Your task to perform on an android device: Do I have any events this weekend? Image 0: 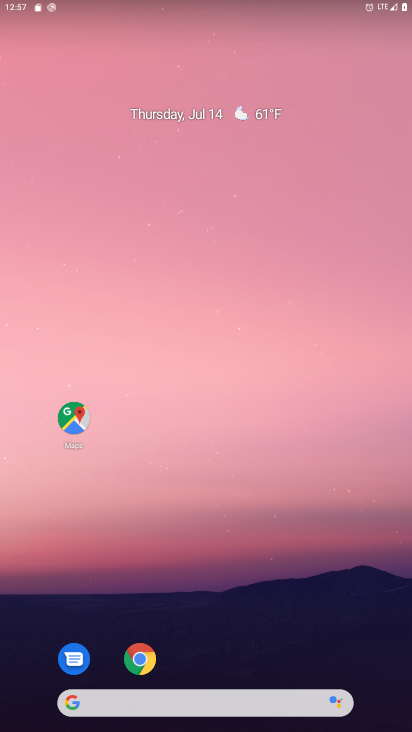
Step 0: drag from (243, 657) to (249, 78)
Your task to perform on an android device: Do I have any events this weekend? Image 1: 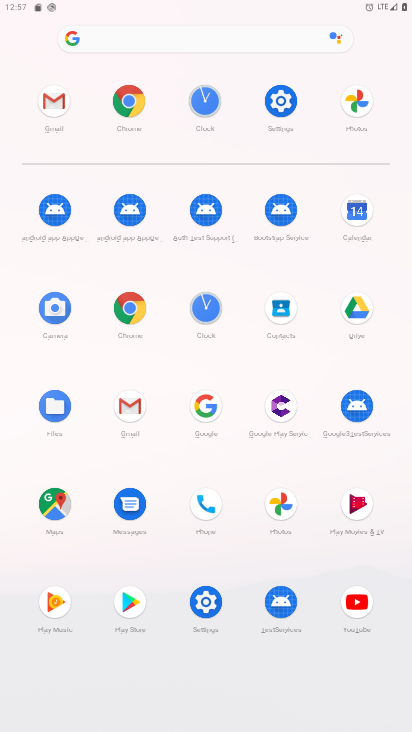
Step 1: click (360, 215)
Your task to perform on an android device: Do I have any events this weekend? Image 2: 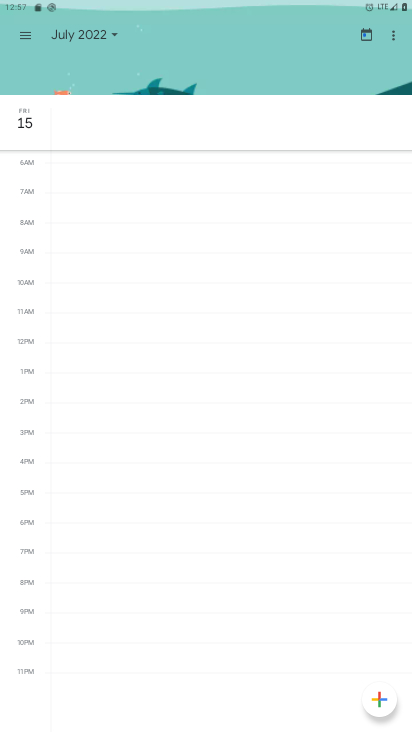
Step 2: click (122, 31)
Your task to perform on an android device: Do I have any events this weekend? Image 3: 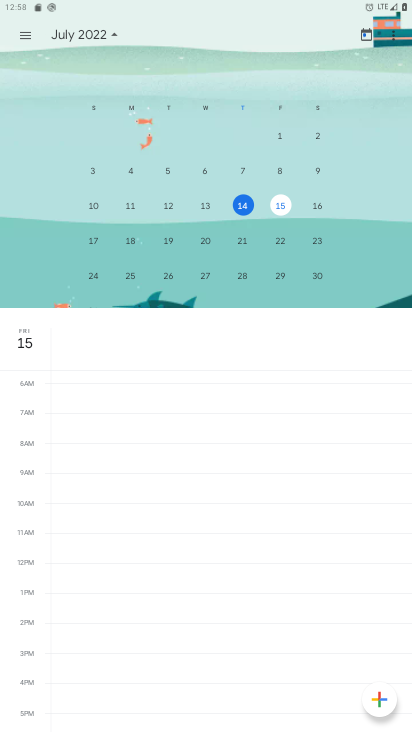
Step 3: click (108, 36)
Your task to perform on an android device: Do I have any events this weekend? Image 4: 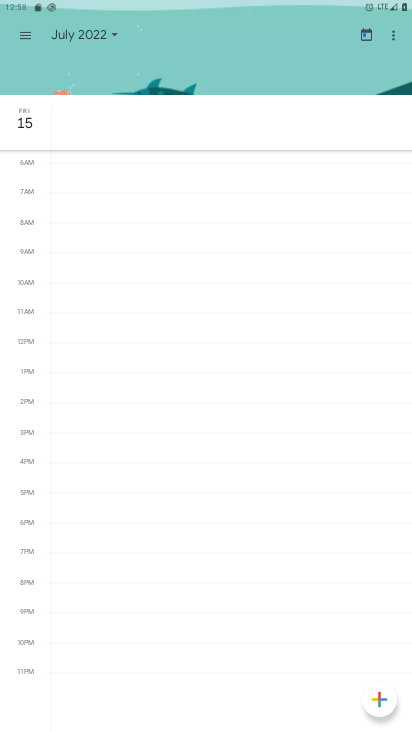
Step 4: click (22, 121)
Your task to perform on an android device: Do I have any events this weekend? Image 5: 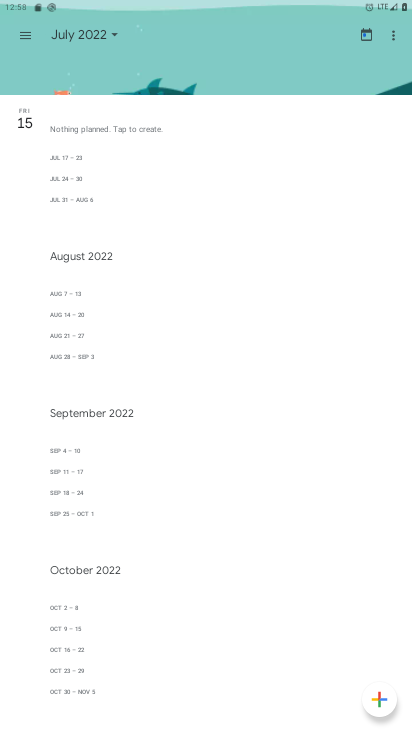
Step 5: task complete